Your task to perform on an android device: turn off notifications settings in the gmail app Image 0: 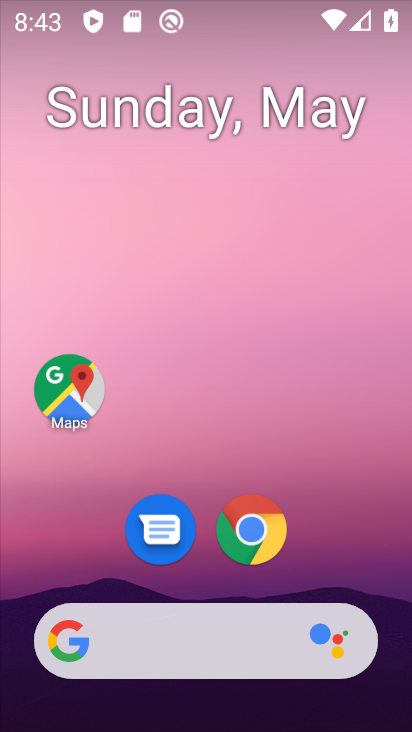
Step 0: drag from (222, 586) to (140, 118)
Your task to perform on an android device: turn off notifications settings in the gmail app Image 1: 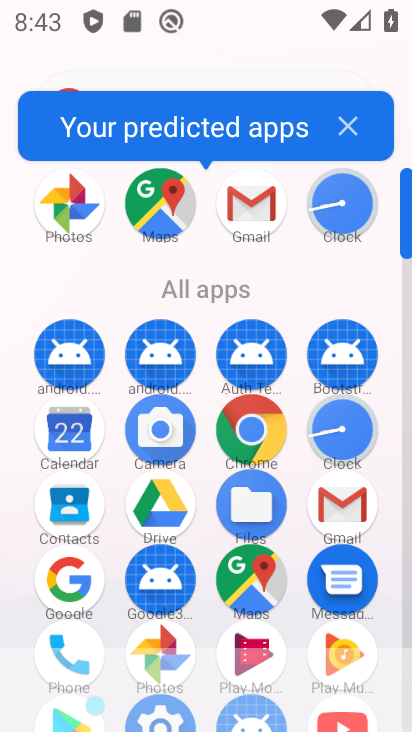
Step 1: click (252, 202)
Your task to perform on an android device: turn off notifications settings in the gmail app Image 2: 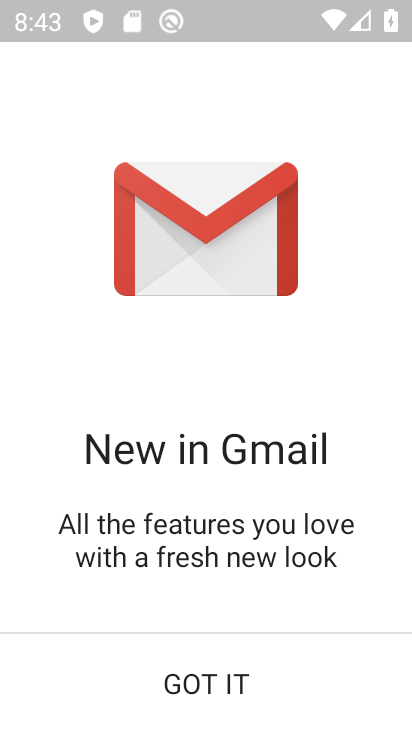
Step 2: click (208, 653)
Your task to perform on an android device: turn off notifications settings in the gmail app Image 3: 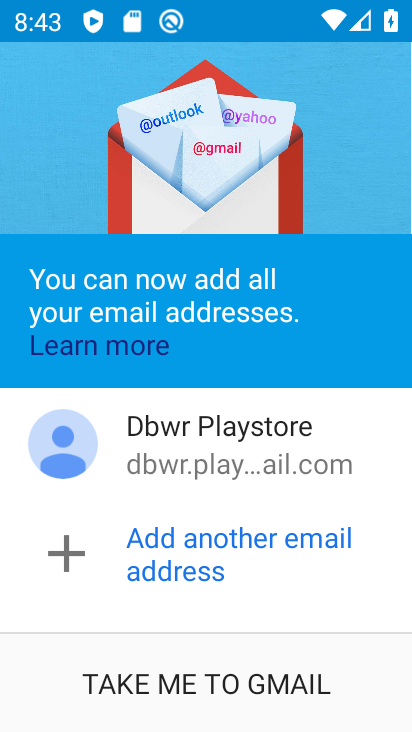
Step 3: click (226, 683)
Your task to perform on an android device: turn off notifications settings in the gmail app Image 4: 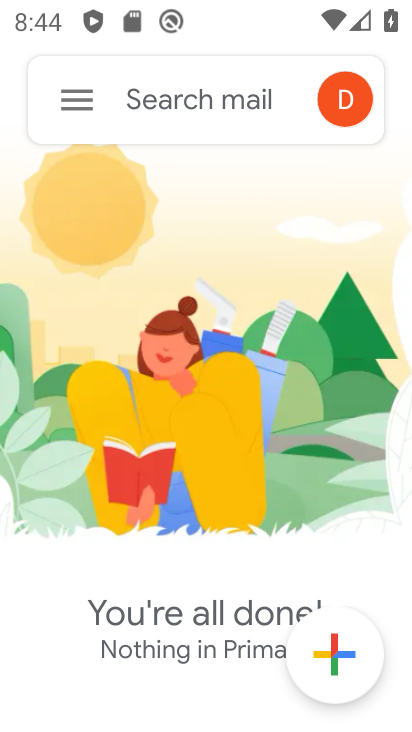
Step 4: click (89, 106)
Your task to perform on an android device: turn off notifications settings in the gmail app Image 5: 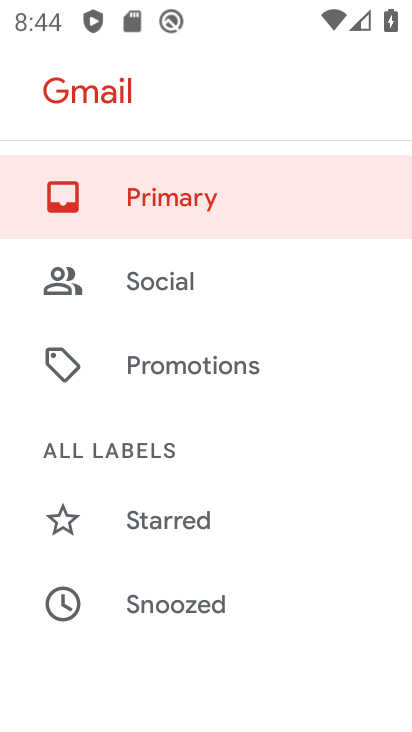
Step 5: drag from (89, 579) to (67, 121)
Your task to perform on an android device: turn off notifications settings in the gmail app Image 6: 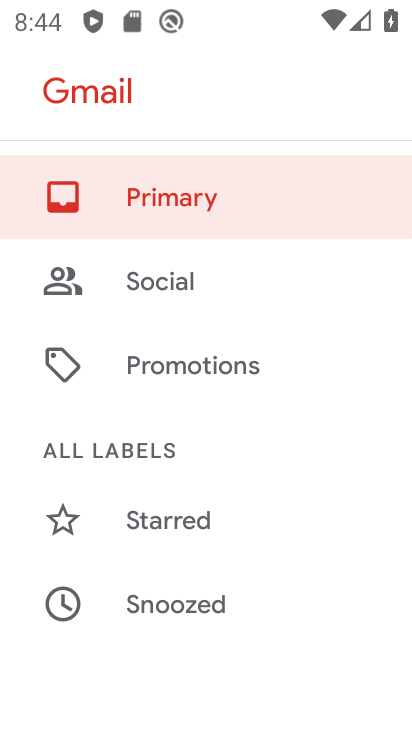
Step 6: drag from (135, 433) to (168, 156)
Your task to perform on an android device: turn off notifications settings in the gmail app Image 7: 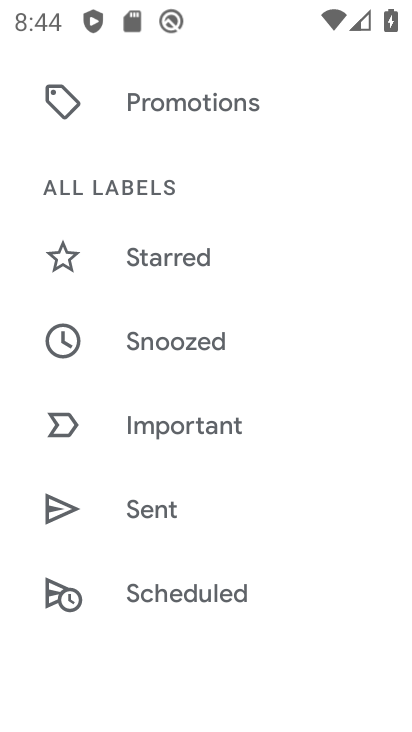
Step 7: drag from (150, 590) to (157, 195)
Your task to perform on an android device: turn off notifications settings in the gmail app Image 8: 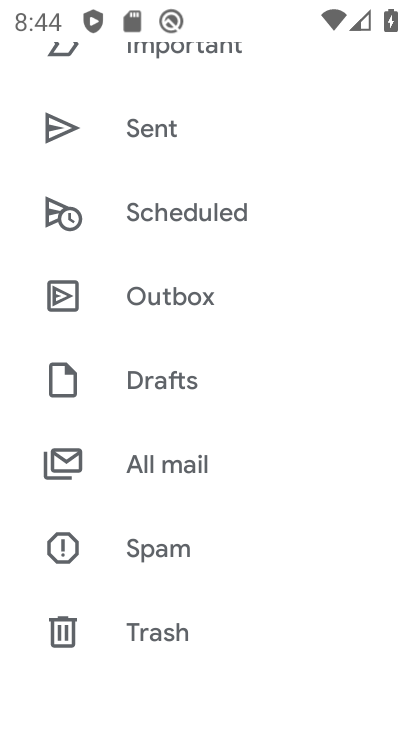
Step 8: drag from (154, 569) to (155, 4)
Your task to perform on an android device: turn off notifications settings in the gmail app Image 9: 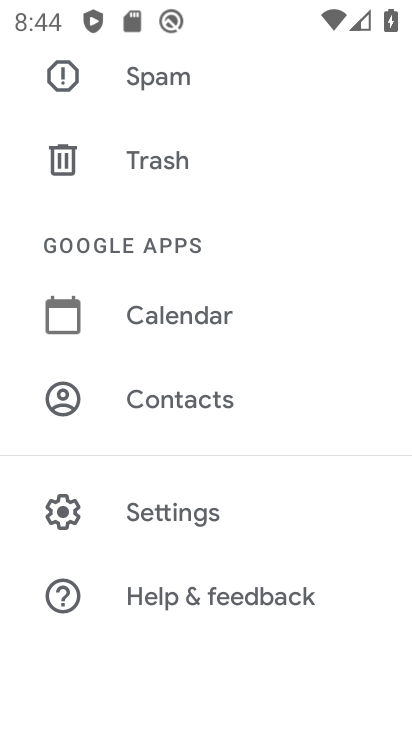
Step 9: click (114, 523)
Your task to perform on an android device: turn off notifications settings in the gmail app Image 10: 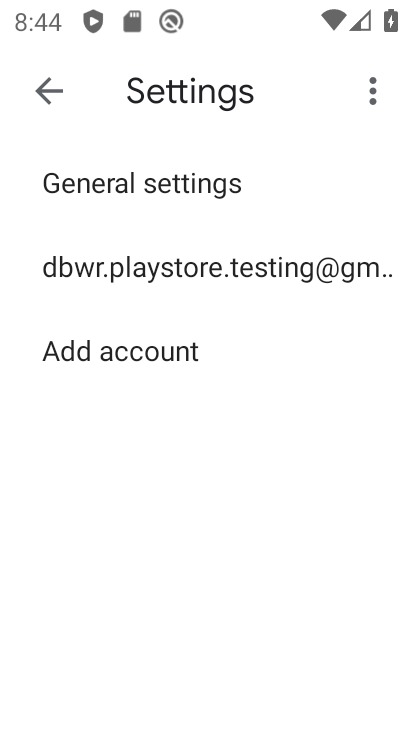
Step 10: click (191, 245)
Your task to perform on an android device: turn off notifications settings in the gmail app Image 11: 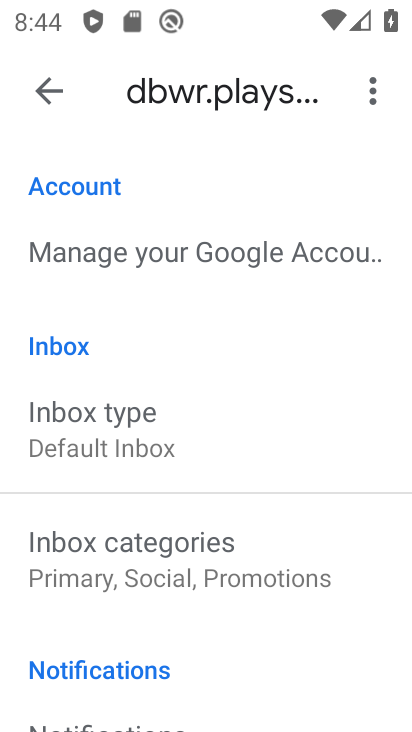
Step 11: drag from (173, 659) to (161, 268)
Your task to perform on an android device: turn off notifications settings in the gmail app Image 12: 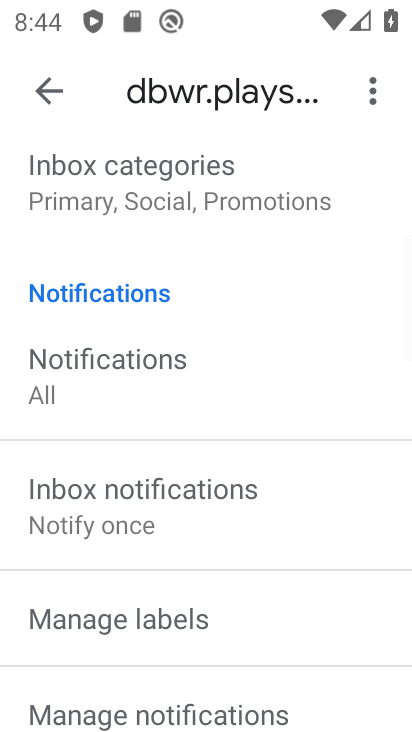
Step 12: drag from (171, 624) to (135, 377)
Your task to perform on an android device: turn off notifications settings in the gmail app Image 13: 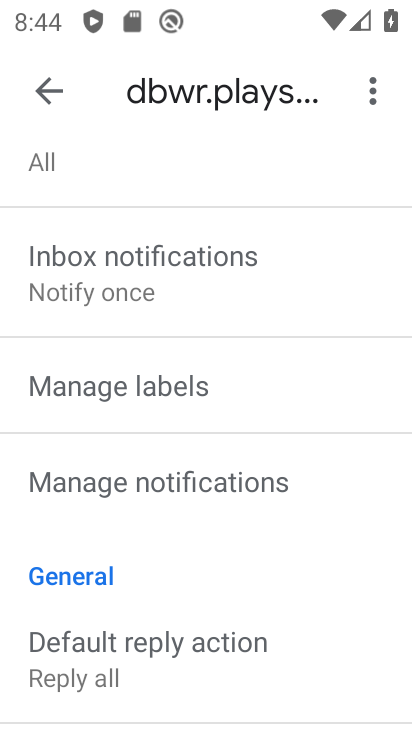
Step 13: click (164, 493)
Your task to perform on an android device: turn off notifications settings in the gmail app Image 14: 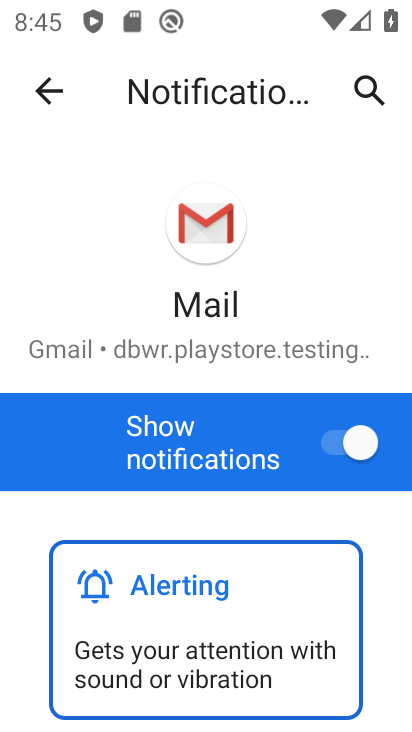
Step 14: click (369, 443)
Your task to perform on an android device: turn off notifications settings in the gmail app Image 15: 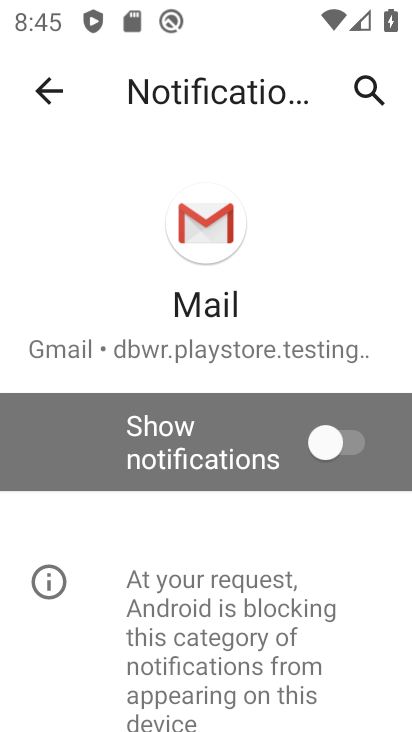
Step 15: task complete